Your task to perform on an android device: set an alarm Image 0: 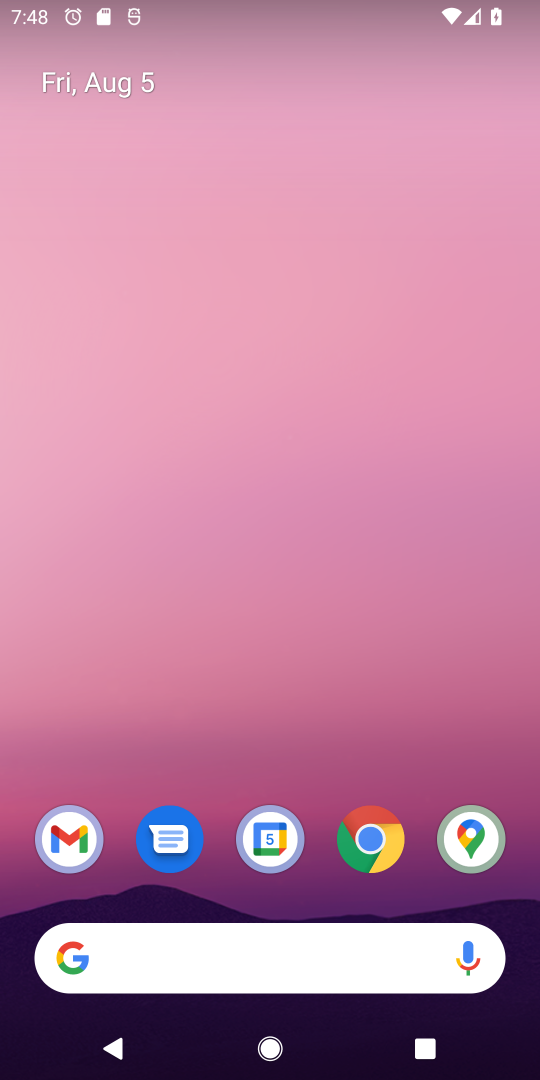
Step 0: drag from (285, 723) to (298, 137)
Your task to perform on an android device: set an alarm Image 1: 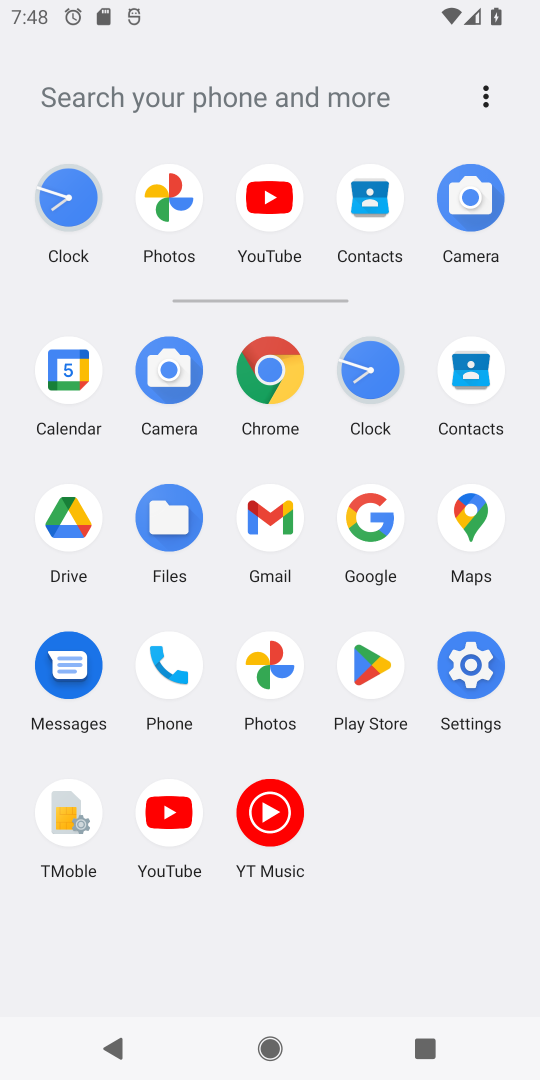
Step 1: click (55, 226)
Your task to perform on an android device: set an alarm Image 2: 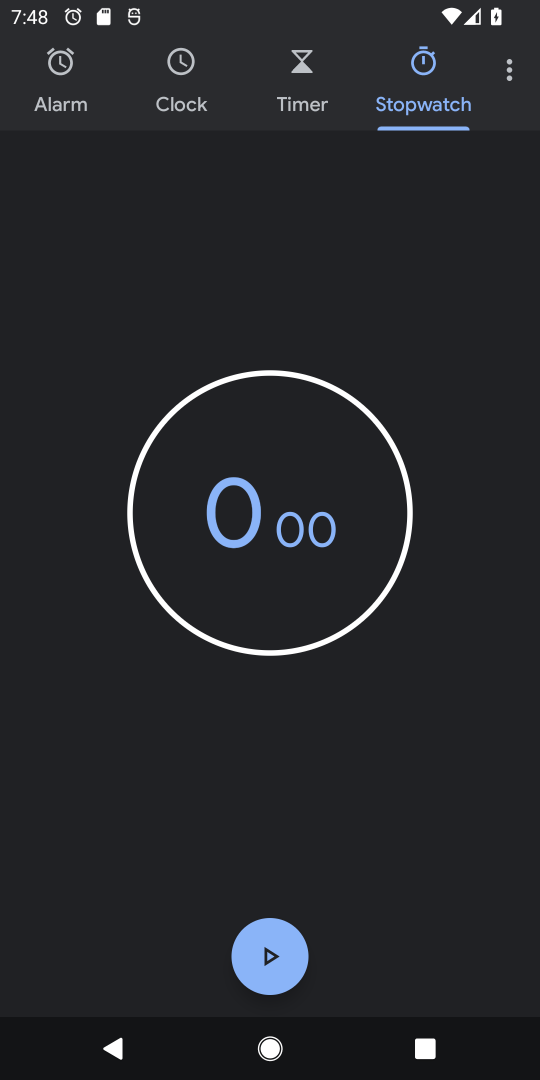
Step 2: click (86, 109)
Your task to perform on an android device: set an alarm Image 3: 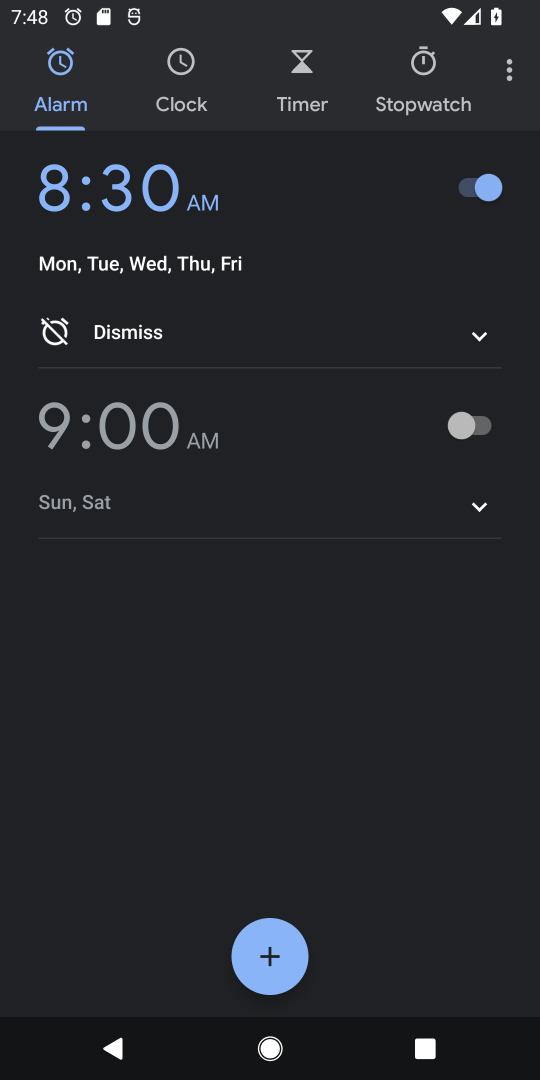
Step 3: click (481, 430)
Your task to perform on an android device: set an alarm Image 4: 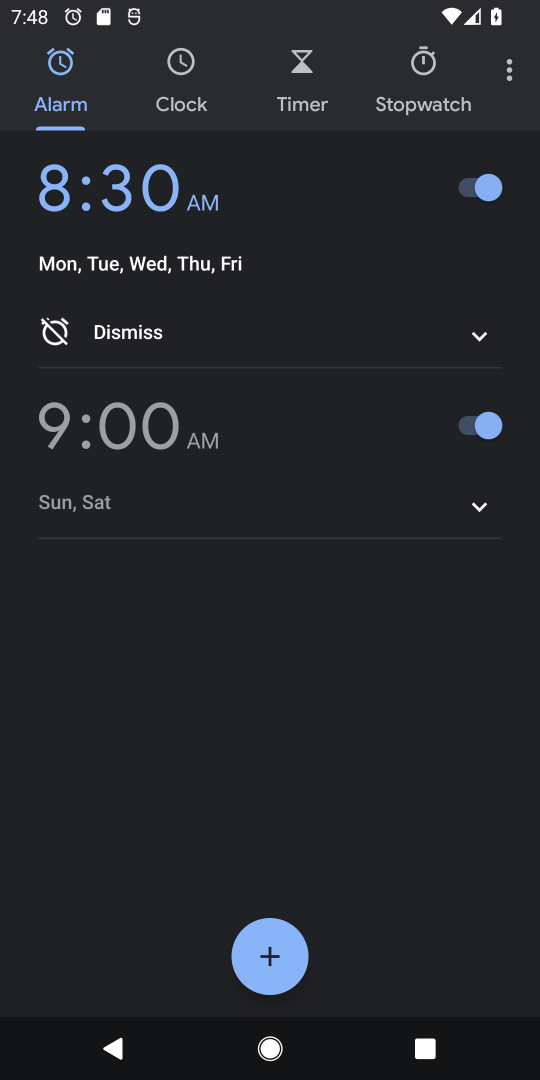
Step 4: task complete